Your task to perform on an android device: change keyboard looks Image 0: 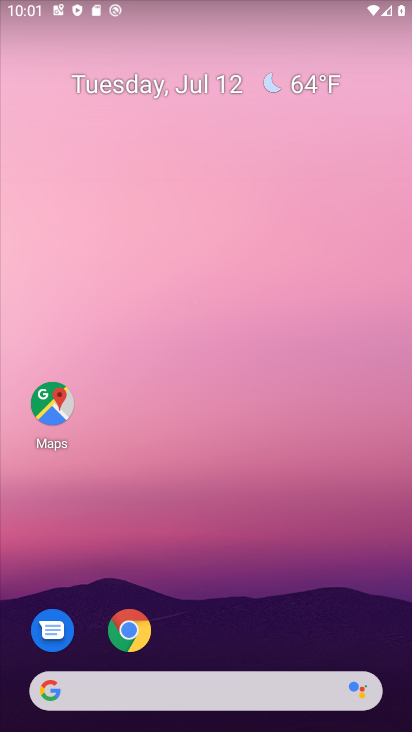
Step 0: drag from (264, 635) to (301, 33)
Your task to perform on an android device: change keyboard looks Image 1: 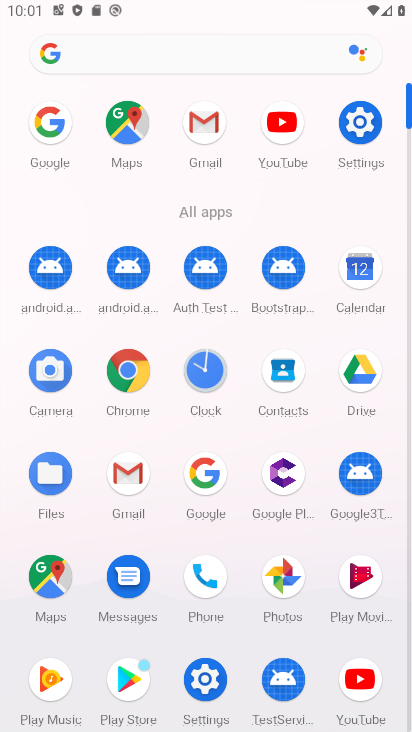
Step 1: click (378, 124)
Your task to perform on an android device: change keyboard looks Image 2: 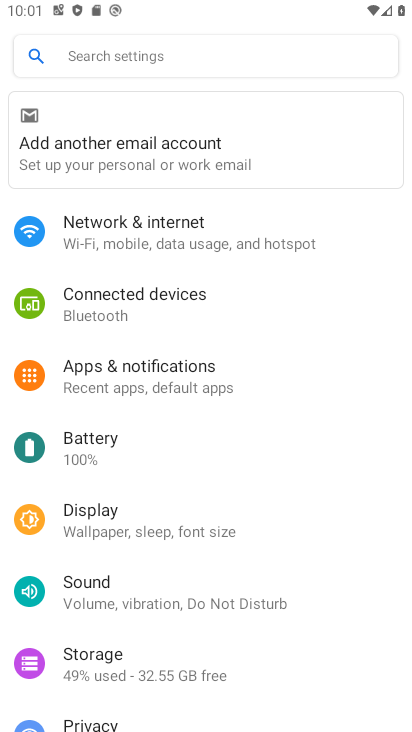
Step 2: drag from (227, 651) to (309, 187)
Your task to perform on an android device: change keyboard looks Image 3: 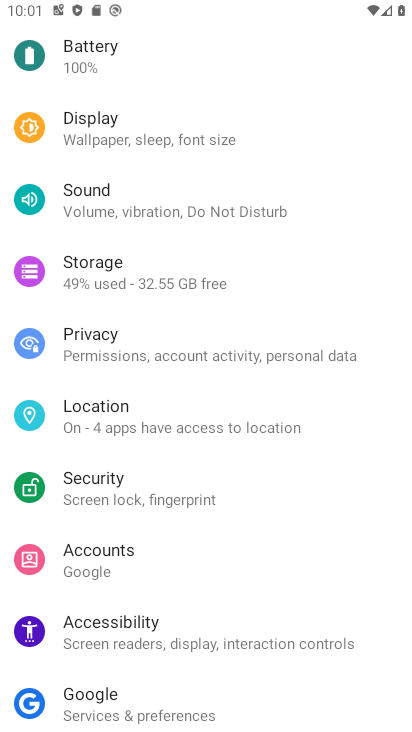
Step 3: drag from (246, 615) to (324, 160)
Your task to perform on an android device: change keyboard looks Image 4: 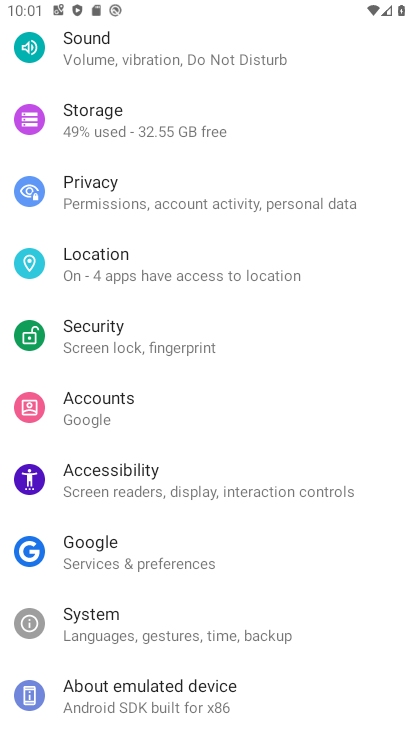
Step 4: click (169, 620)
Your task to perform on an android device: change keyboard looks Image 5: 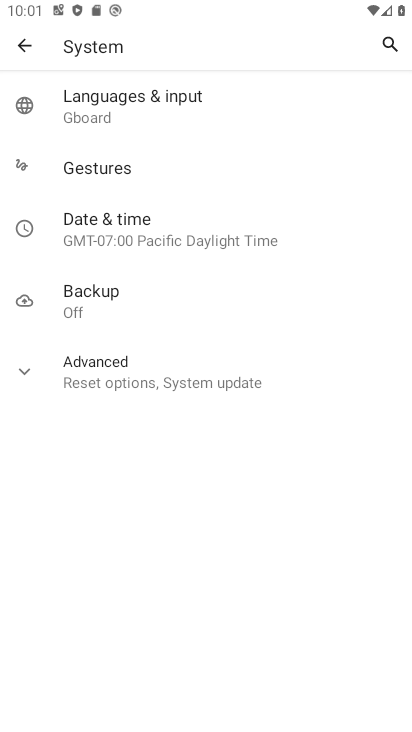
Step 5: click (108, 115)
Your task to perform on an android device: change keyboard looks Image 6: 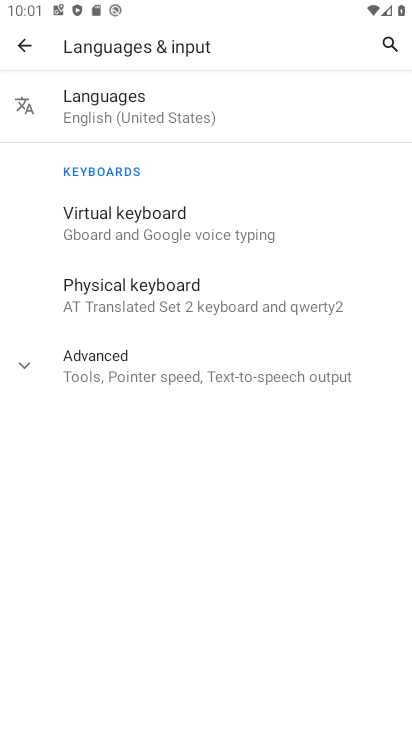
Step 6: click (144, 220)
Your task to perform on an android device: change keyboard looks Image 7: 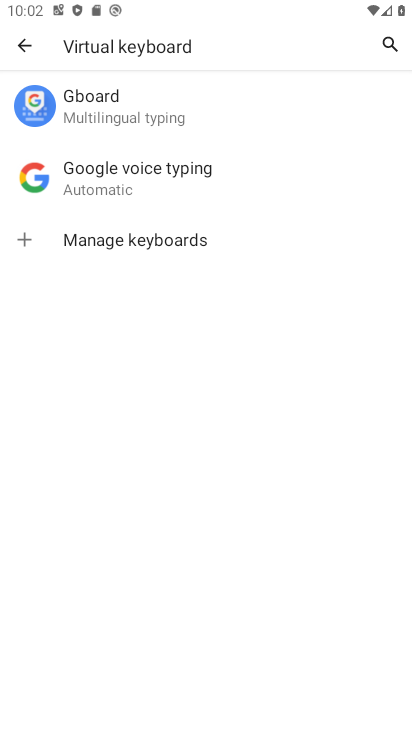
Step 7: click (121, 103)
Your task to perform on an android device: change keyboard looks Image 8: 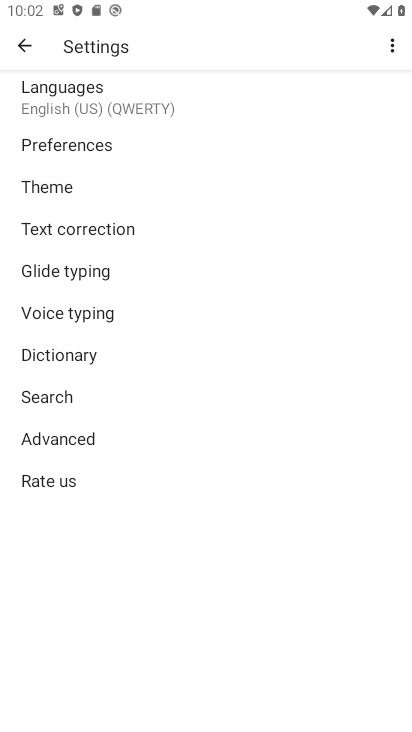
Step 8: click (121, 103)
Your task to perform on an android device: change keyboard looks Image 9: 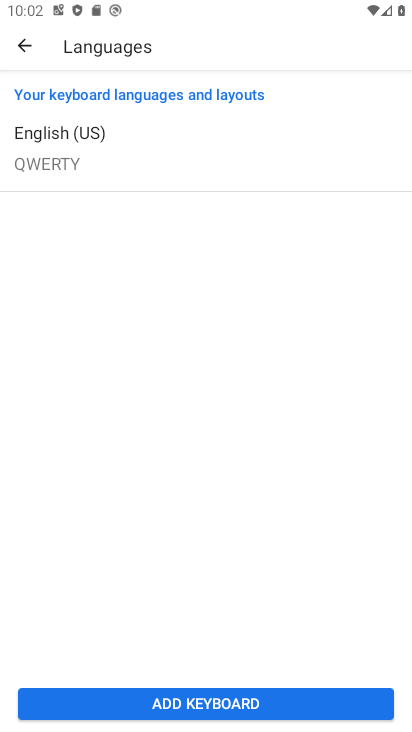
Step 9: click (23, 43)
Your task to perform on an android device: change keyboard looks Image 10: 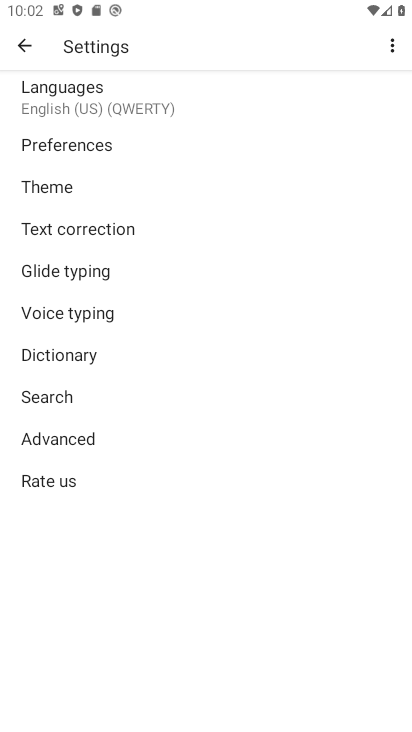
Step 10: click (93, 191)
Your task to perform on an android device: change keyboard looks Image 11: 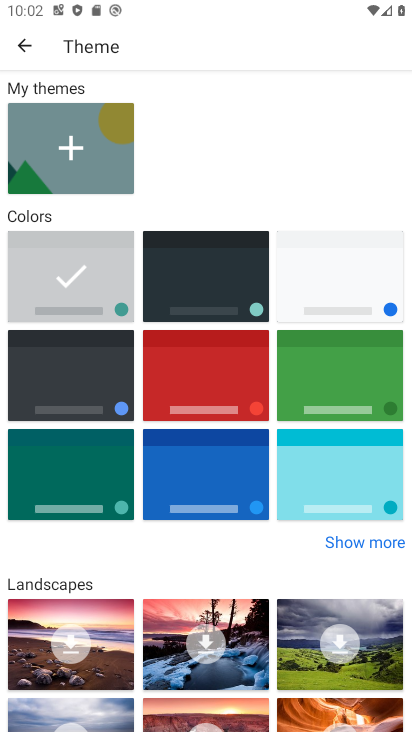
Step 11: click (224, 282)
Your task to perform on an android device: change keyboard looks Image 12: 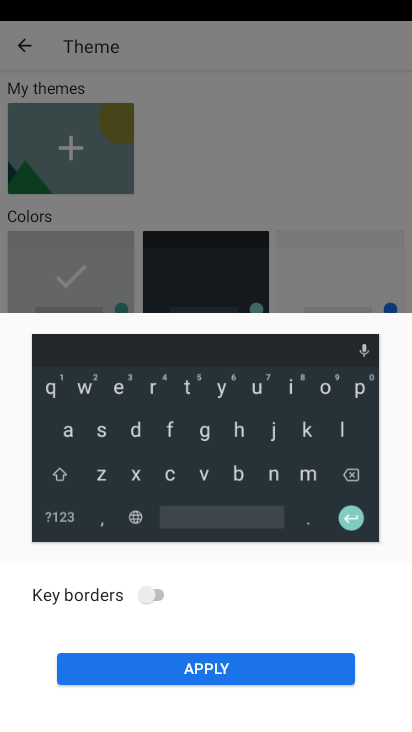
Step 12: click (227, 673)
Your task to perform on an android device: change keyboard looks Image 13: 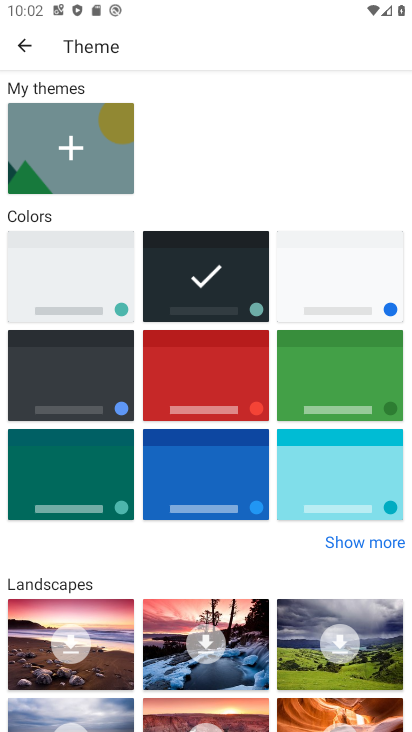
Step 13: task complete